Your task to perform on an android device: Is it going to rain tomorrow? Image 0: 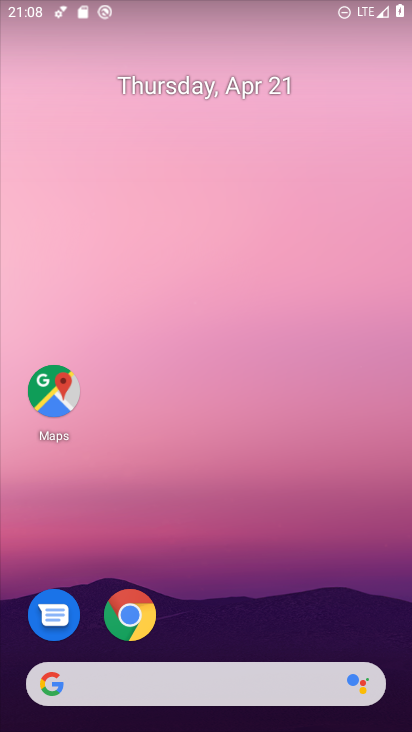
Step 0: drag from (229, 505) to (333, 92)
Your task to perform on an android device: Is it going to rain tomorrow? Image 1: 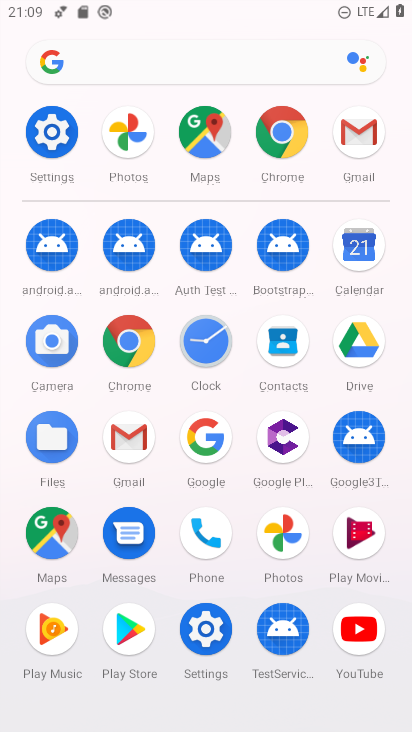
Step 1: click (132, 331)
Your task to perform on an android device: Is it going to rain tomorrow? Image 2: 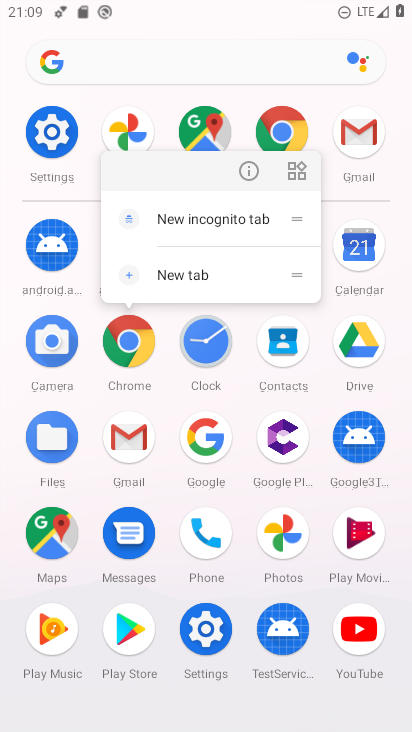
Step 2: click (244, 164)
Your task to perform on an android device: Is it going to rain tomorrow? Image 3: 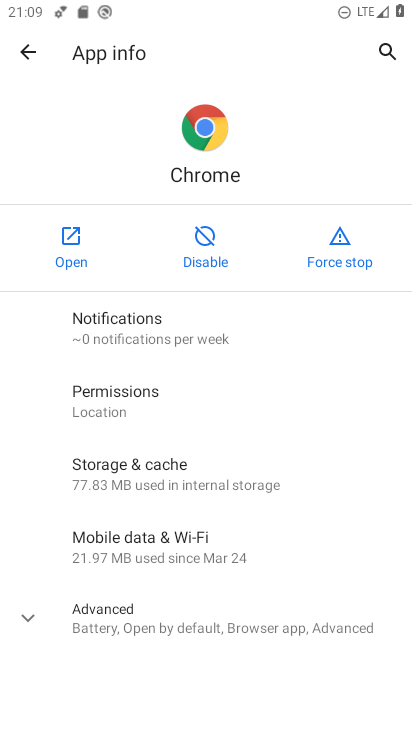
Step 3: click (67, 251)
Your task to perform on an android device: Is it going to rain tomorrow? Image 4: 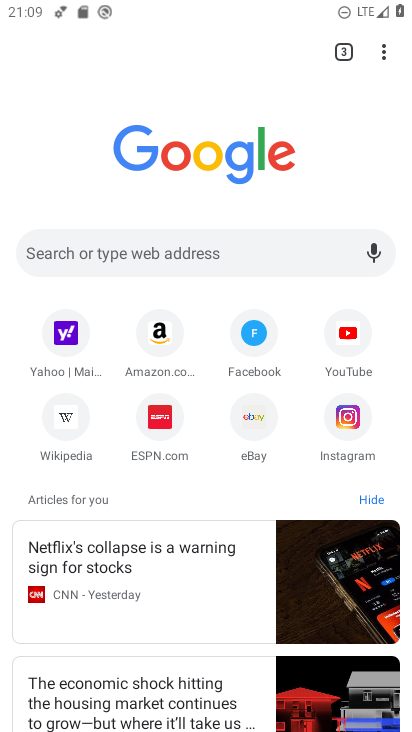
Step 4: click (97, 260)
Your task to perform on an android device: Is it going to rain tomorrow? Image 5: 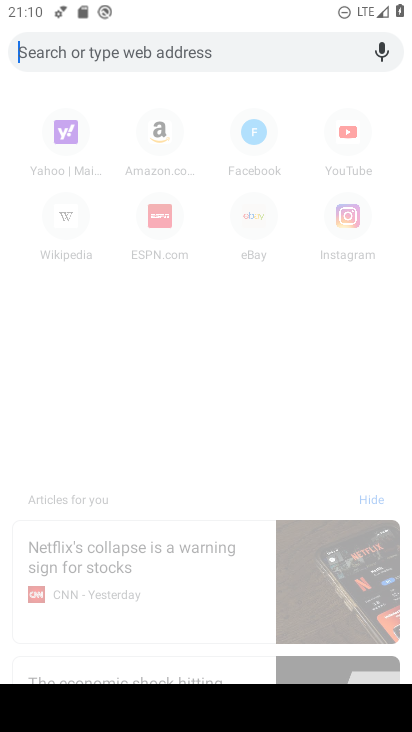
Step 5: type "rain tomorrow"
Your task to perform on an android device: Is it going to rain tomorrow? Image 6: 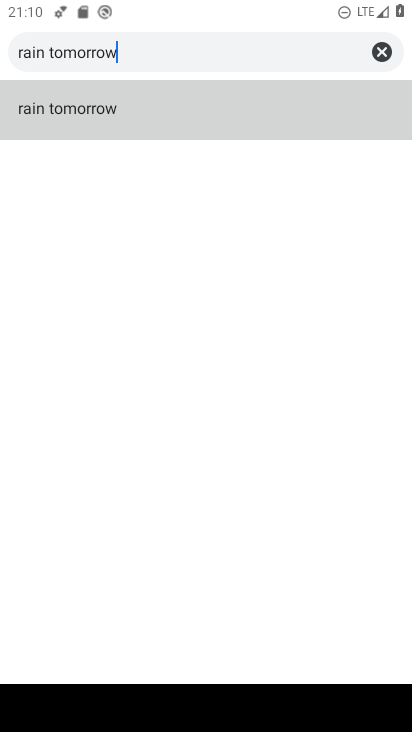
Step 6: click (87, 112)
Your task to perform on an android device: Is it going to rain tomorrow? Image 7: 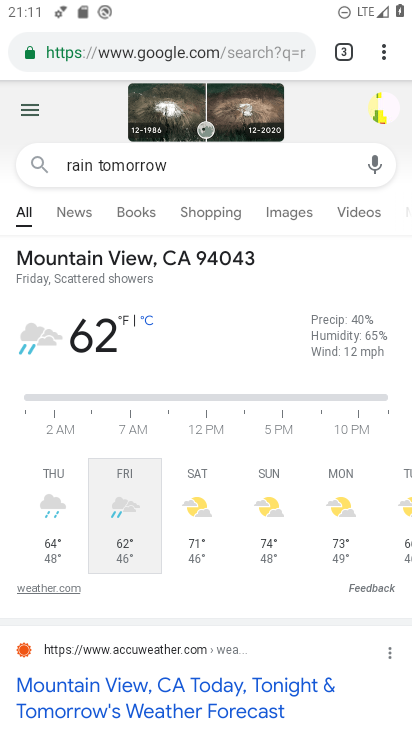
Step 7: task complete